Your task to perform on an android device: refresh tabs in the chrome app Image 0: 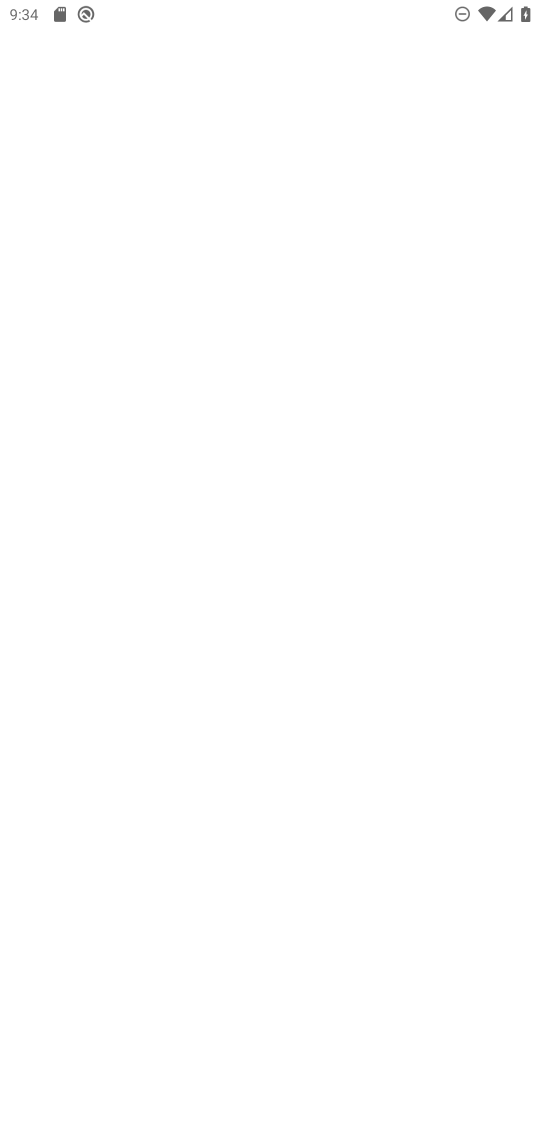
Step 0: press back button
Your task to perform on an android device: refresh tabs in the chrome app Image 1: 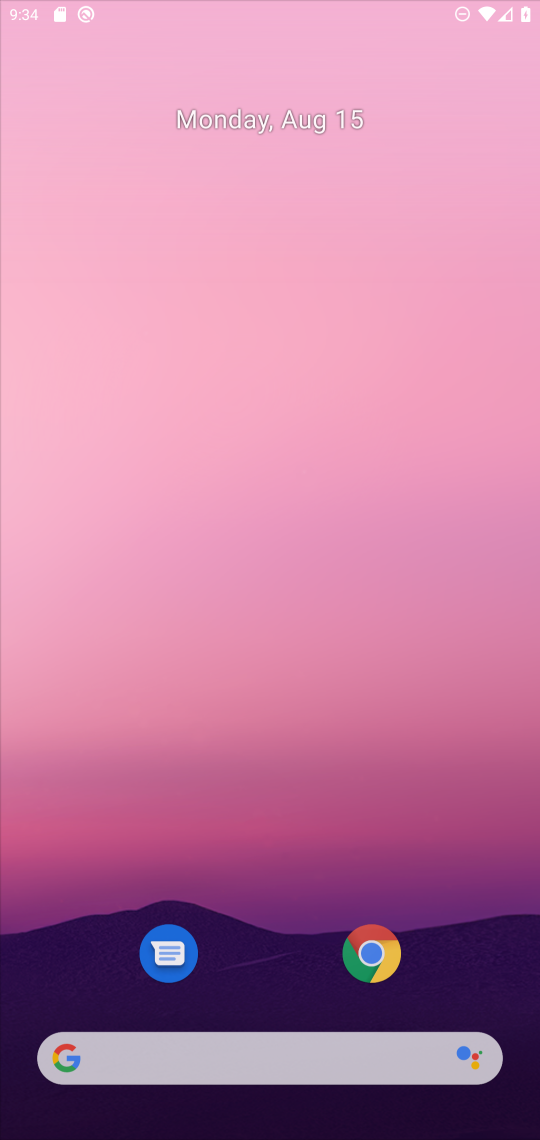
Step 1: press back button
Your task to perform on an android device: refresh tabs in the chrome app Image 2: 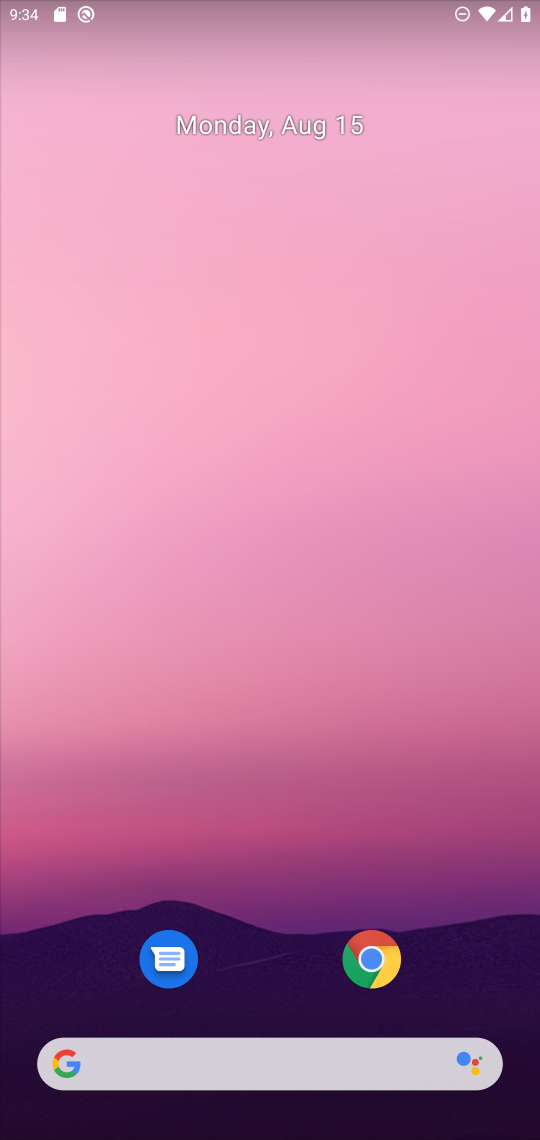
Step 2: drag from (315, 1028) to (152, 51)
Your task to perform on an android device: refresh tabs in the chrome app Image 3: 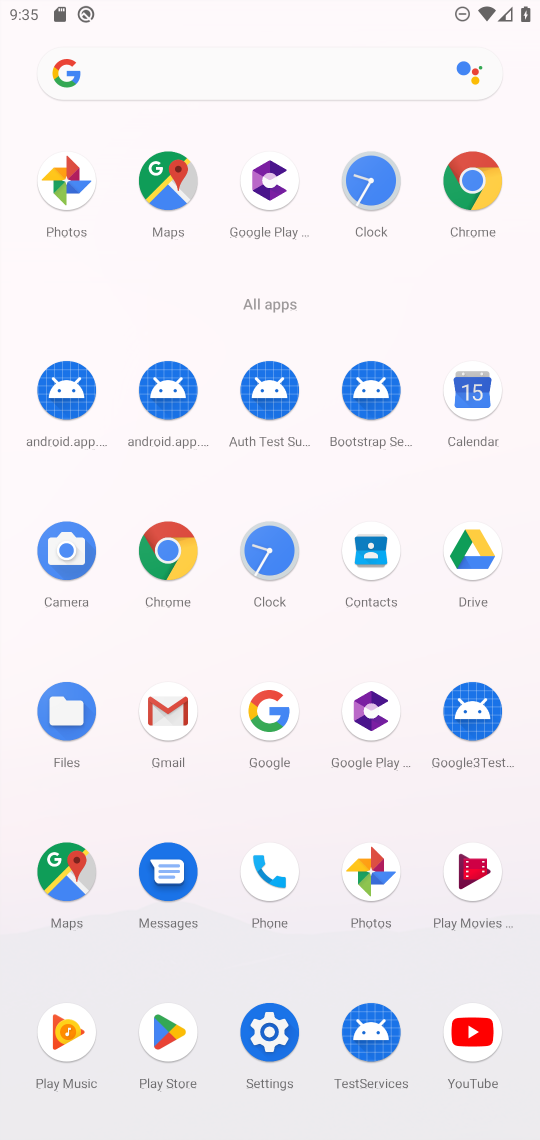
Step 3: click (175, 556)
Your task to perform on an android device: refresh tabs in the chrome app Image 4: 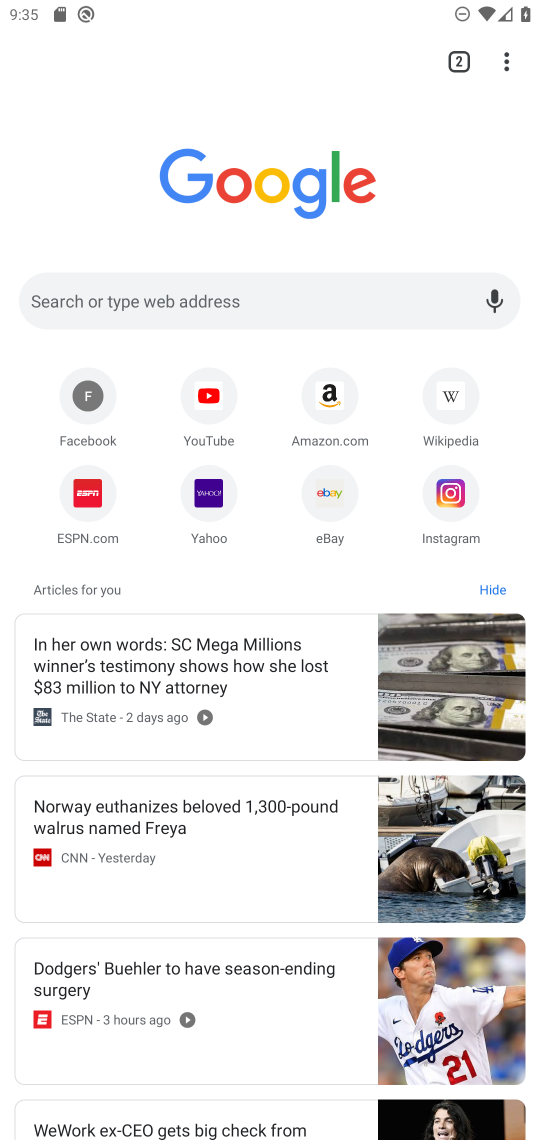
Step 4: click (497, 67)
Your task to perform on an android device: refresh tabs in the chrome app Image 5: 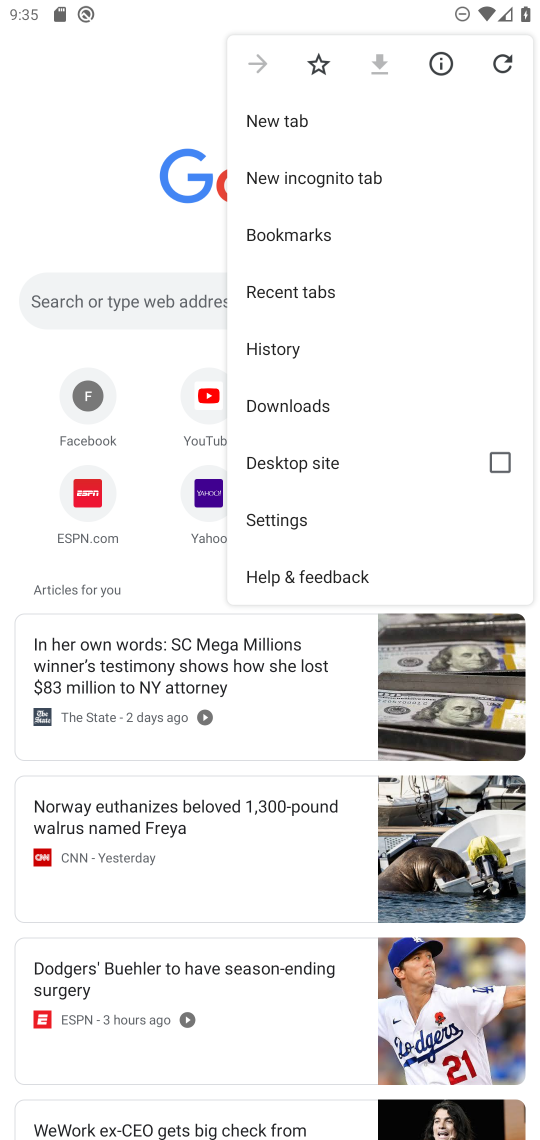
Step 5: click (497, 62)
Your task to perform on an android device: refresh tabs in the chrome app Image 6: 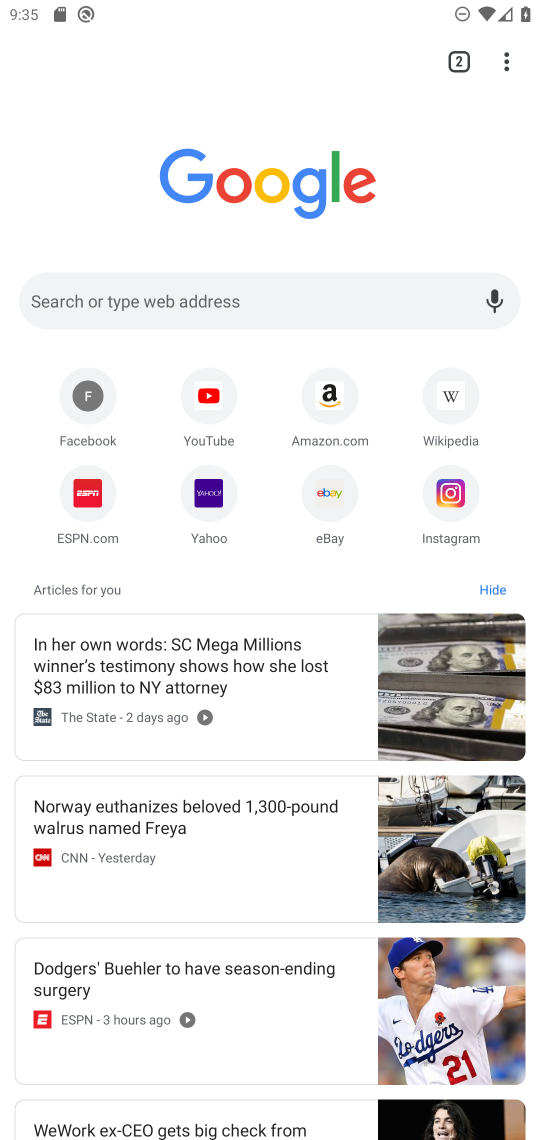
Step 6: task complete